Your task to perform on an android device: Open privacy settings Image 0: 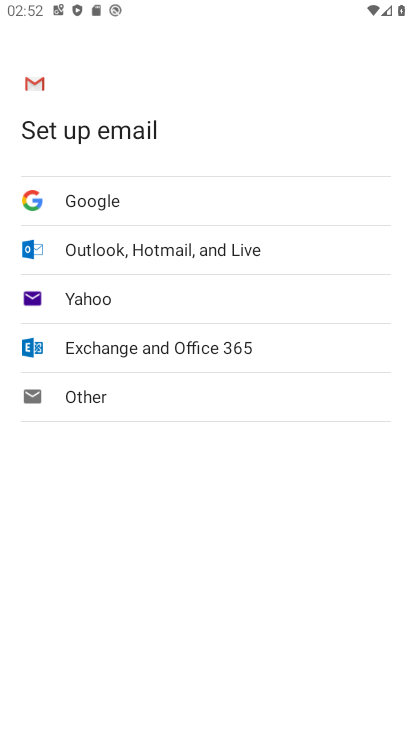
Step 0: press home button
Your task to perform on an android device: Open privacy settings Image 1: 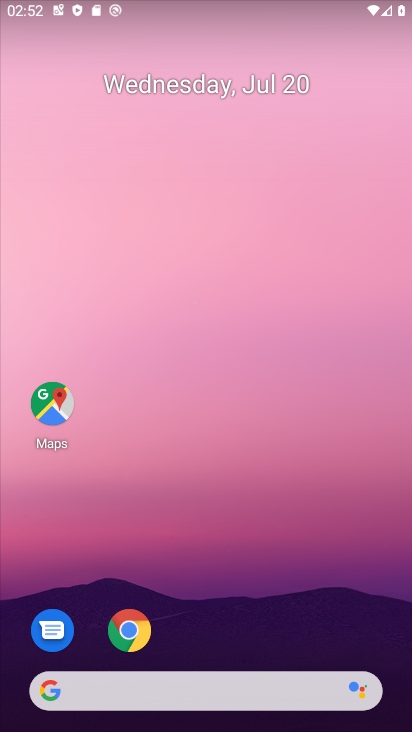
Step 1: drag from (359, 625) to (396, 102)
Your task to perform on an android device: Open privacy settings Image 2: 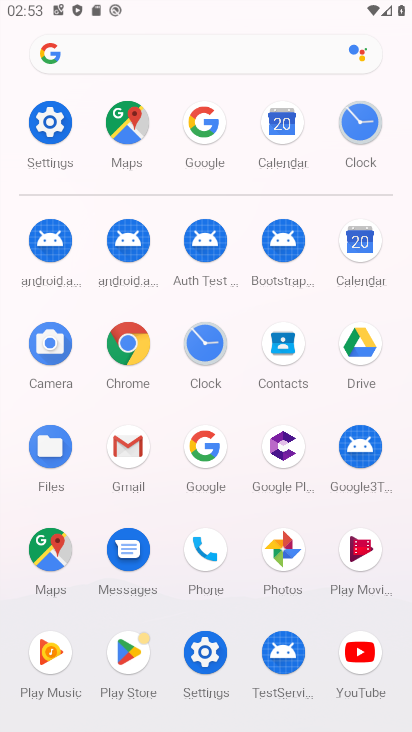
Step 2: click (55, 122)
Your task to perform on an android device: Open privacy settings Image 3: 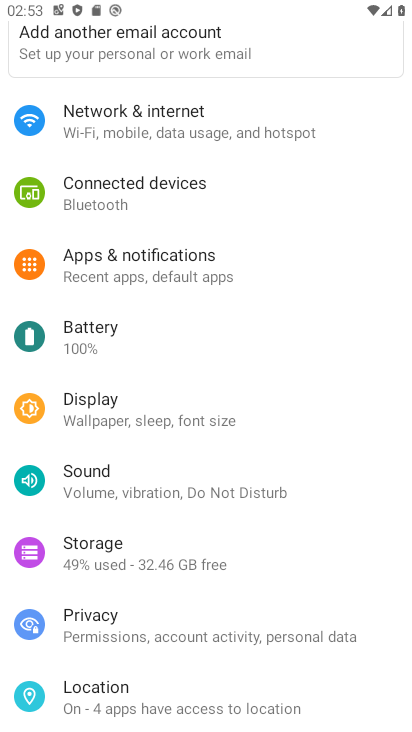
Step 3: drag from (341, 403) to (348, 329)
Your task to perform on an android device: Open privacy settings Image 4: 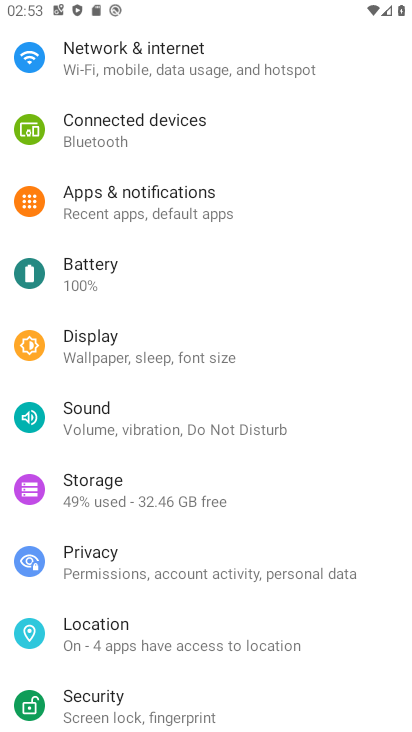
Step 4: drag from (356, 455) to (361, 376)
Your task to perform on an android device: Open privacy settings Image 5: 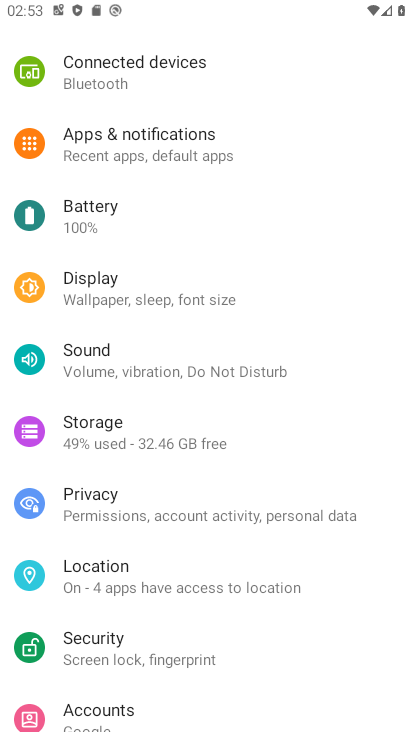
Step 5: drag from (352, 441) to (352, 326)
Your task to perform on an android device: Open privacy settings Image 6: 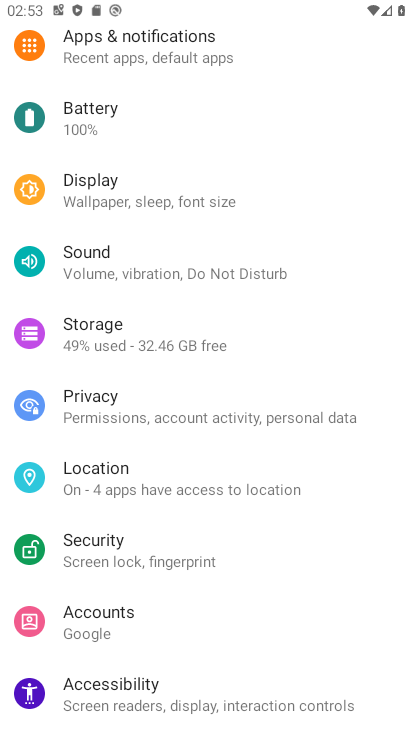
Step 6: drag from (345, 481) to (347, 362)
Your task to perform on an android device: Open privacy settings Image 7: 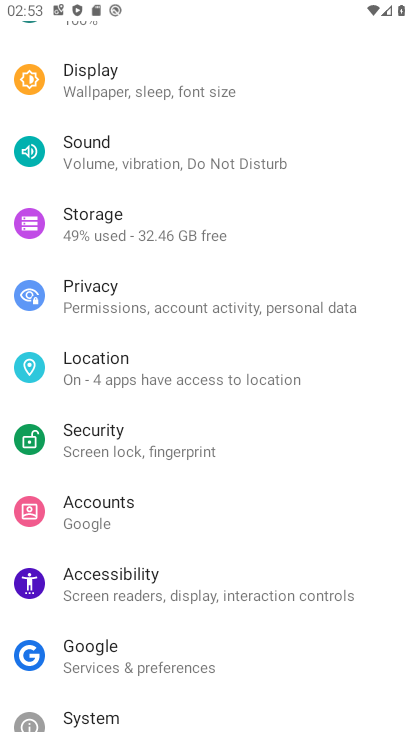
Step 7: drag from (337, 486) to (346, 291)
Your task to perform on an android device: Open privacy settings Image 8: 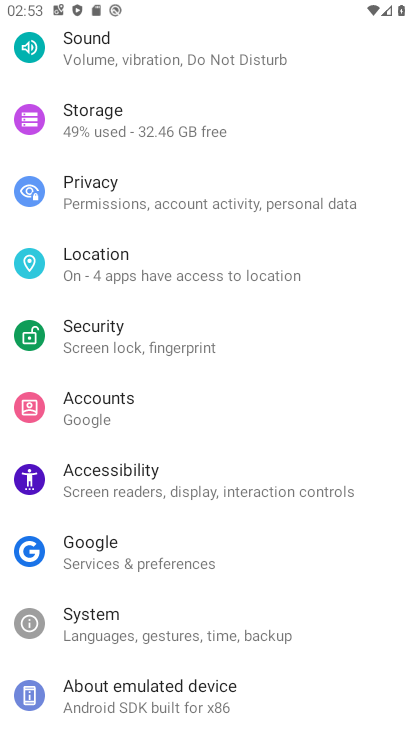
Step 8: click (338, 205)
Your task to perform on an android device: Open privacy settings Image 9: 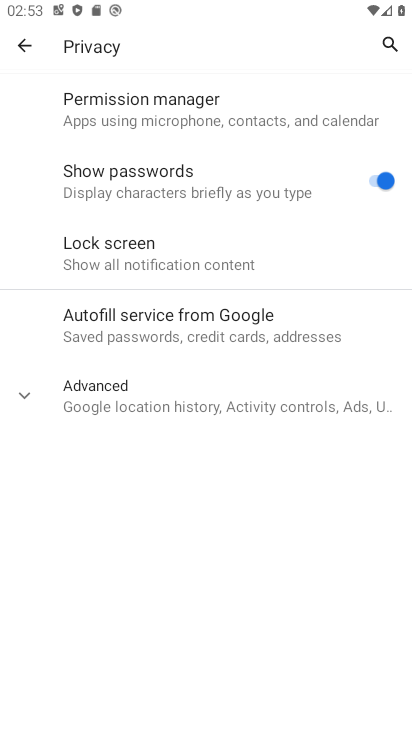
Step 9: click (241, 402)
Your task to perform on an android device: Open privacy settings Image 10: 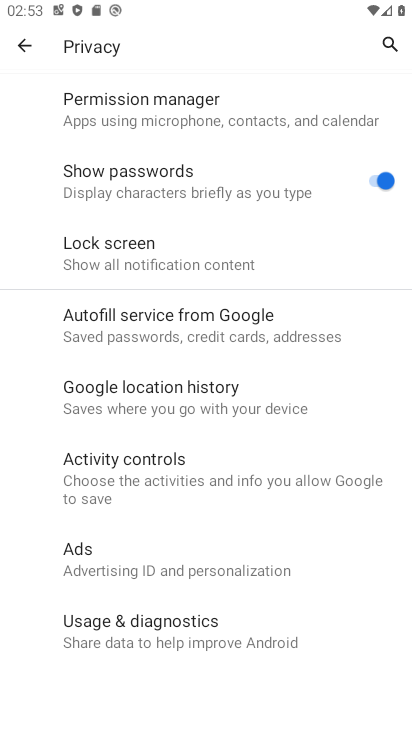
Step 10: task complete